Your task to perform on an android device: Open Youtube and go to the subscriptions tab Image 0: 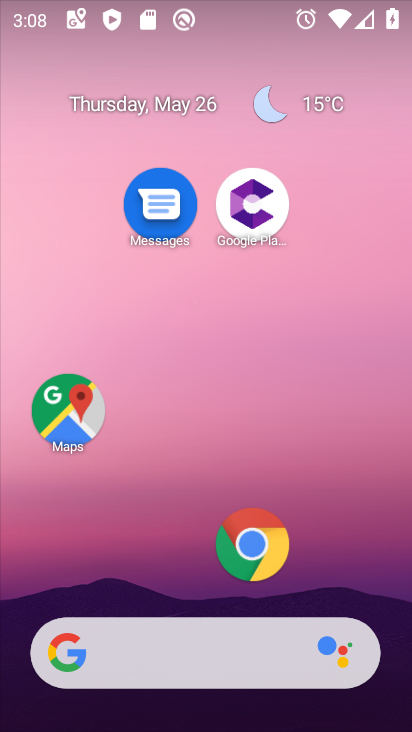
Step 0: drag from (133, 592) to (131, 160)
Your task to perform on an android device: Open Youtube and go to the subscriptions tab Image 1: 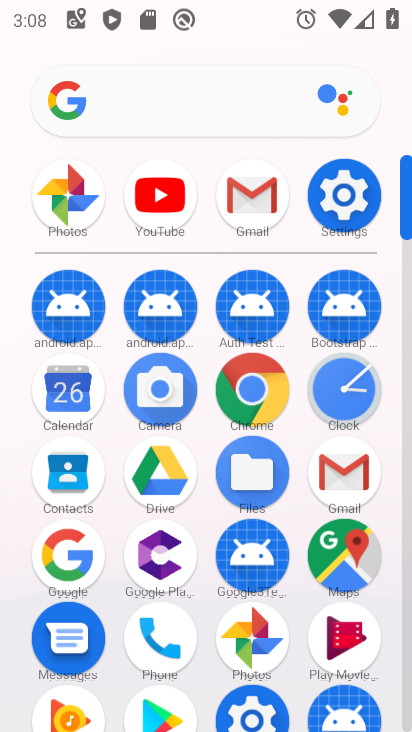
Step 1: click (150, 207)
Your task to perform on an android device: Open Youtube and go to the subscriptions tab Image 2: 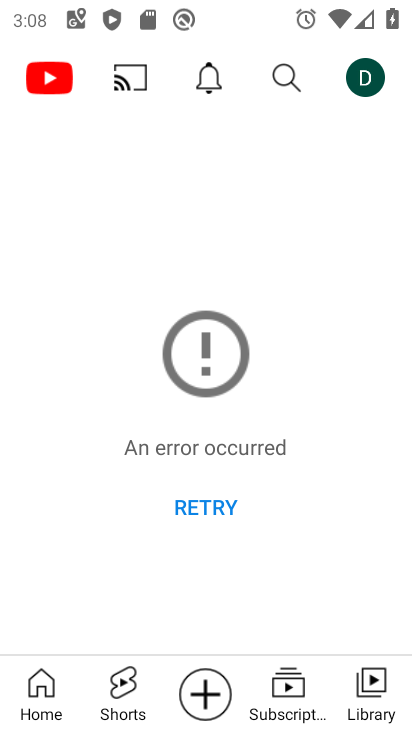
Step 2: click (297, 684)
Your task to perform on an android device: Open Youtube and go to the subscriptions tab Image 3: 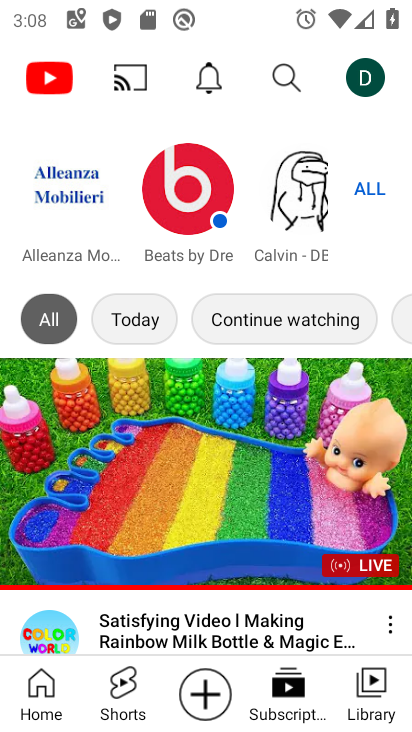
Step 3: task complete